Your task to perform on an android device: find which apps use the phone's location Image 0: 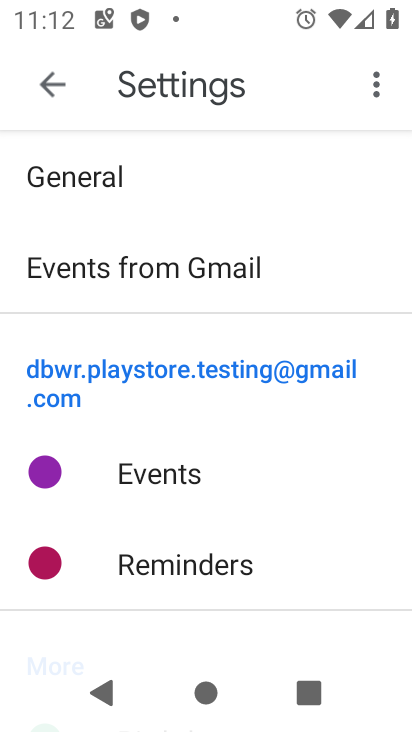
Step 0: press home button
Your task to perform on an android device: find which apps use the phone's location Image 1: 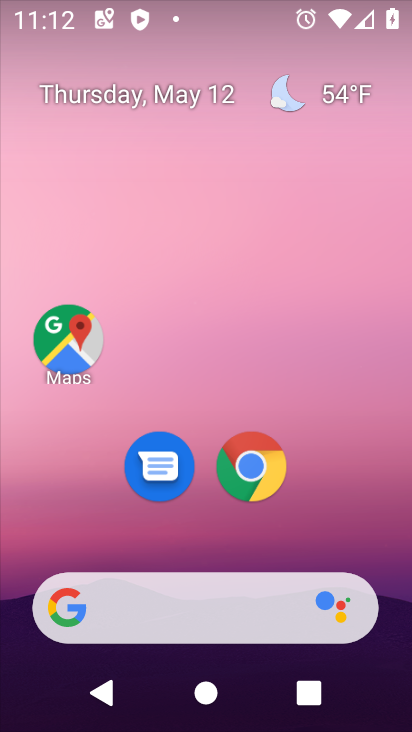
Step 1: drag from (389, 514) to (321, 13)
Your task to perform on an android device: find which apps use the phone's location Image 2: 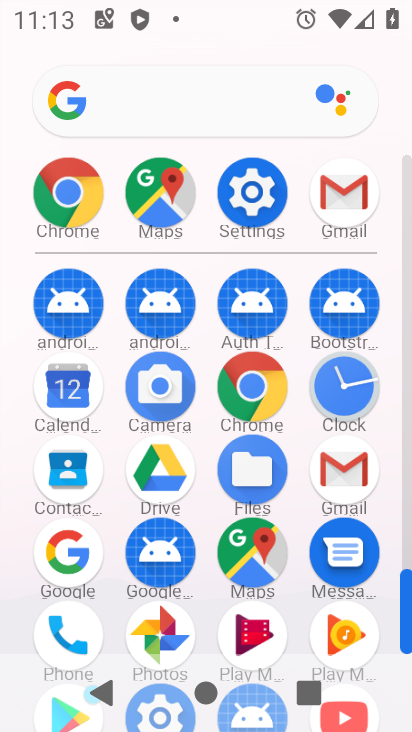
Step 2: click (273, 197)
Your task to perform on an android device: find which apps use the phone's location Image 3: 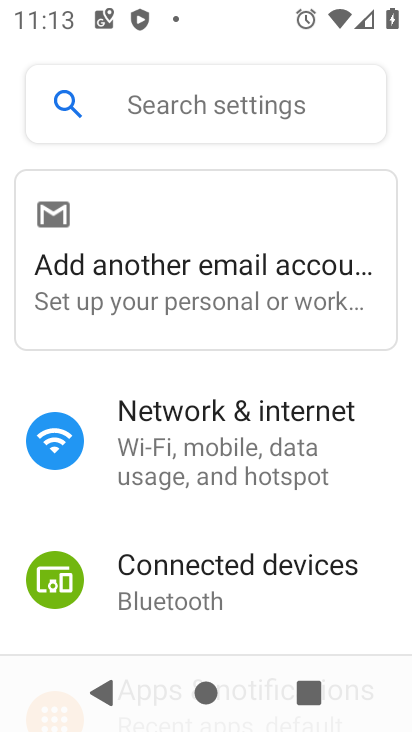
Step 3: drag from (266, 596) to (263, 237)
Your task to perform on an android device: find which apps use the phone's location Image 4: 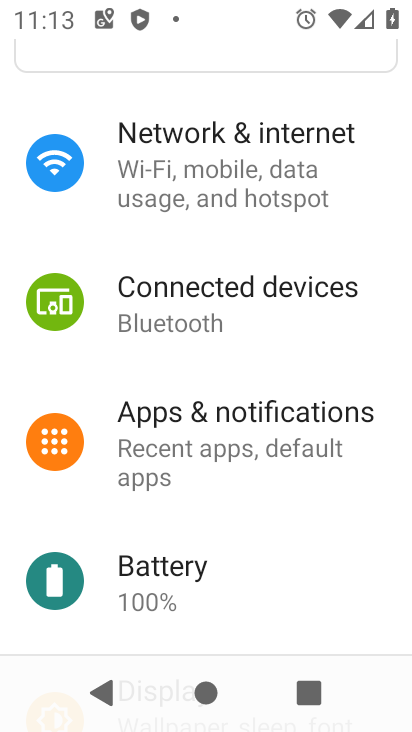
Step 4: drag from (264, 541) to (235, 227)
Your task to perform on an android device: find which apps use the phone's location Image 5: 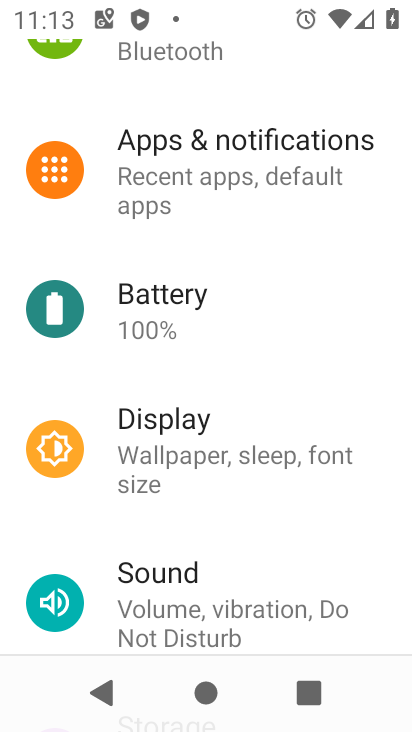
Step 5: drag from (257, 518) to (222, 193)
Your task to perform on an android device: find which apps use the phone's location Image 6: 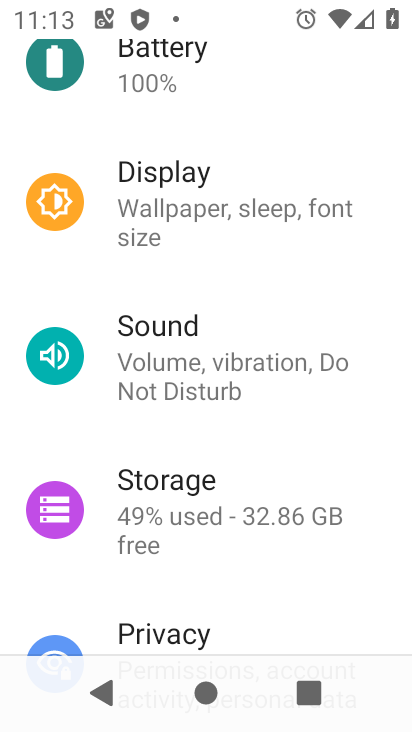
Step 6: drag from (247, 220) to (277, 568)
Your task to perform on an android device: find which apps use the phone's location Image 7: 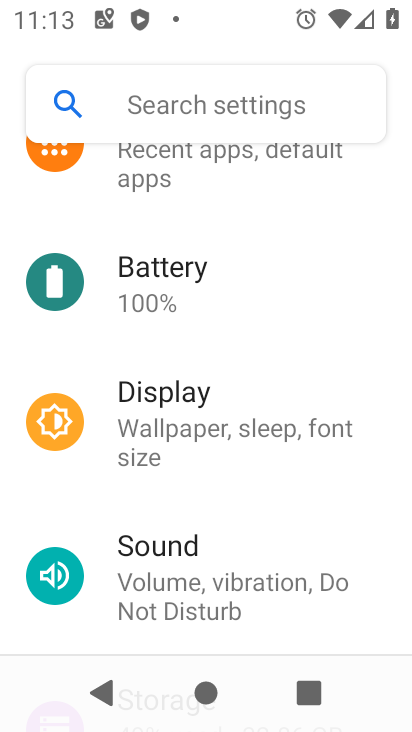
Step 7: drag from (252, 256) to (256, 597)
Your task to perform on an android device: find which apps use the phone's location Image 8: 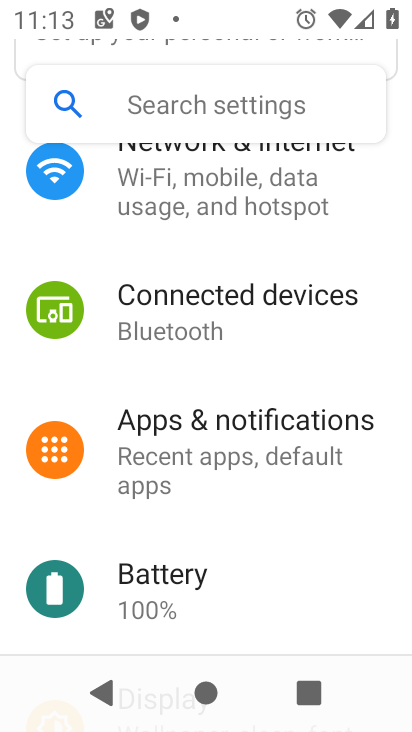
Step 8: drag from (293, 595) to (300, 200)
Your task to perform on an android device: find which apps use the phone's location Image 9: 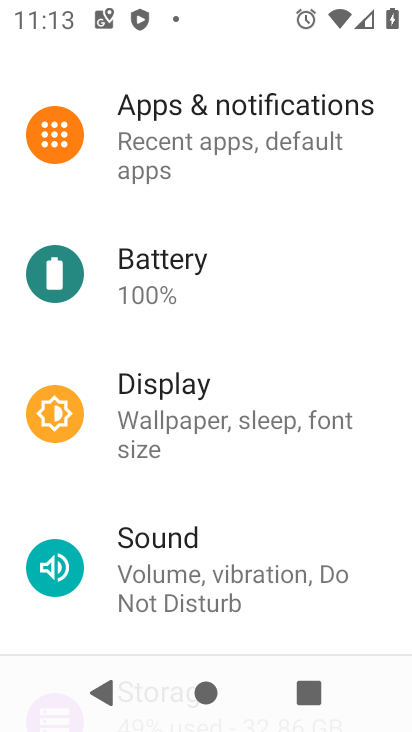
Step 9: drag from (281, 597) to (281, 278)
Your task to perform on an android device: find which apps use the phone's location Image 10: 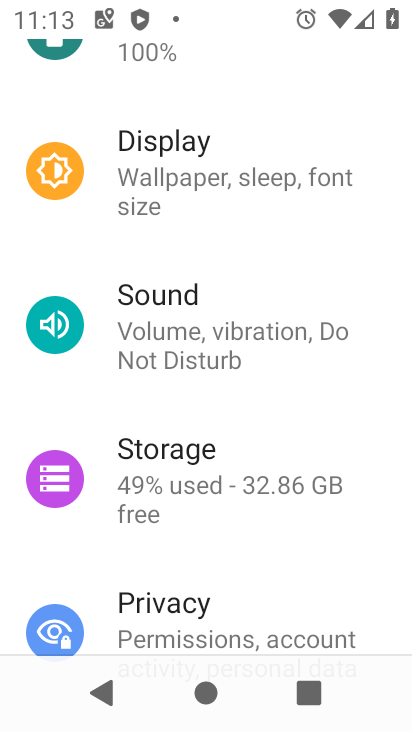
Step 10: drag from (279, 577) to (281, 234)
Your task to perform on an android device: find which apps use the phone's location Image 11: 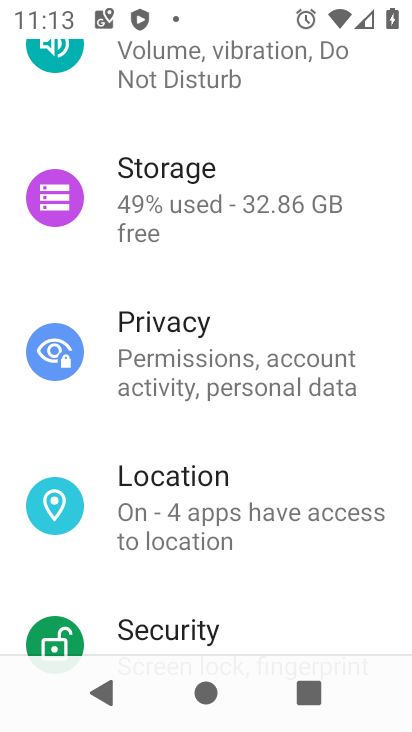
Step 11: click (247, 492)
Your task to perform on an android device: find which apps use the phone's location Image 12: 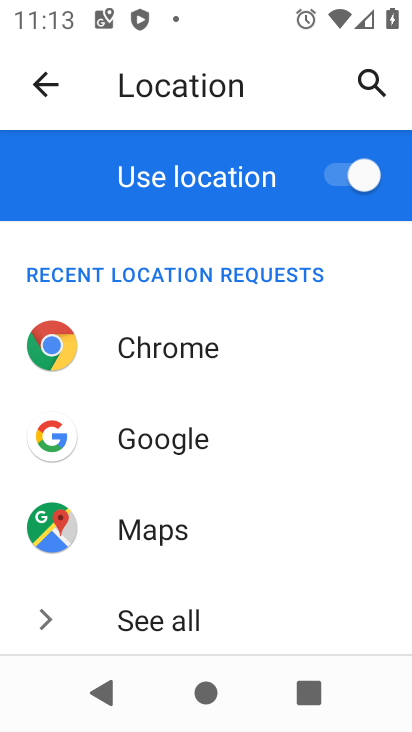
Step 12: task complete